Your task to perform on an android device: find snoozed emails in the gmail app Image 0: 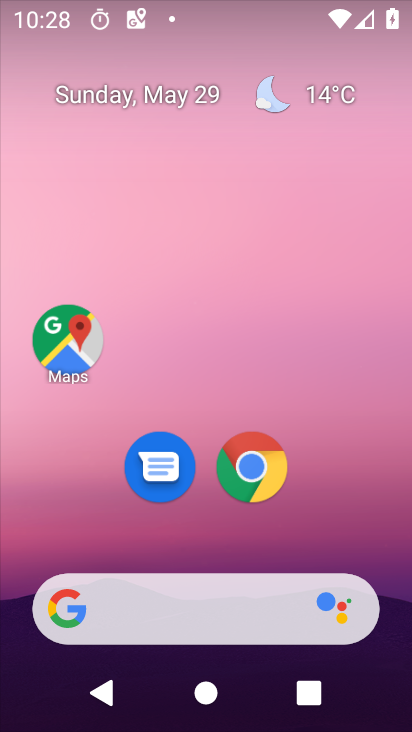
Step 0: drag from (192, 538) to (175, 250)
Your task to perform on an android device: find snoozed emails in the gmail app Image 1: 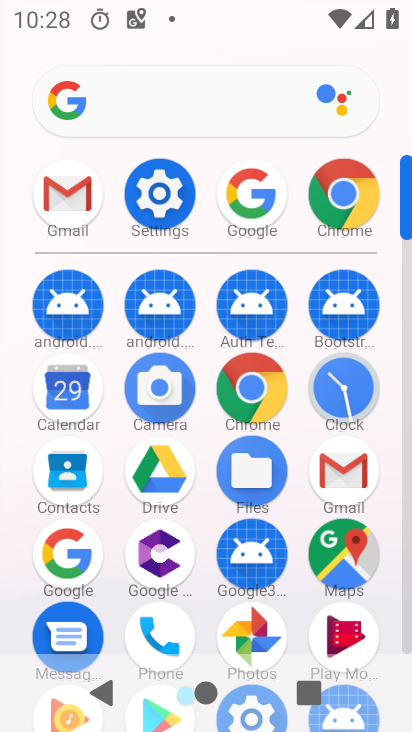
Step 1: click (86, 198)
Your task to perform on an android device: find snoozed emails in the gmail app Image 2: 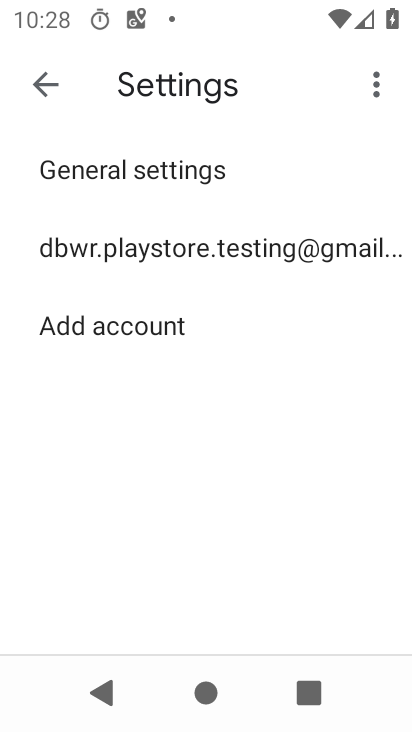
Step 2: click (37, 91)
Your task to perform on an android device: find snoozed emails in the gmail app Image 3: 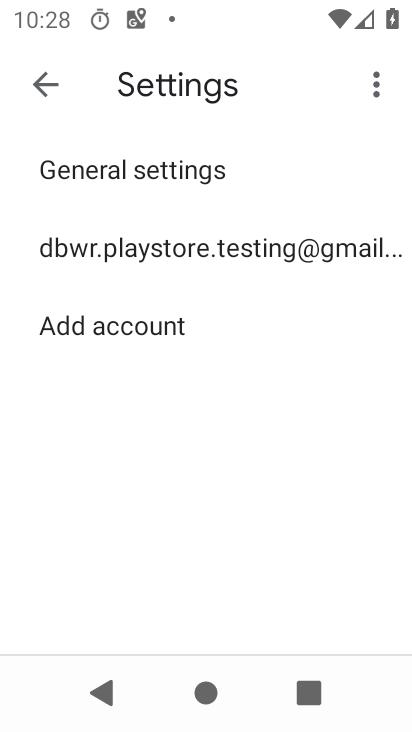
Step 3: click (41, 93)
Your task to perform on an android device: find snoozed emails in the gmail app Image 4: 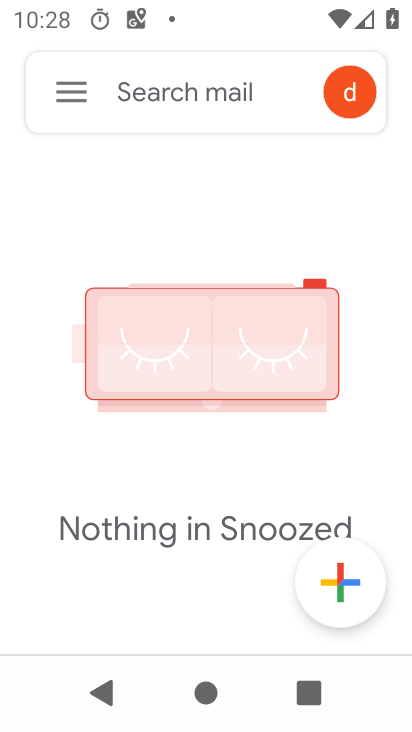
Step 4: click (61, 88)
Your task to perform on an android device: find snoozed emails in the gmail app Image 5: 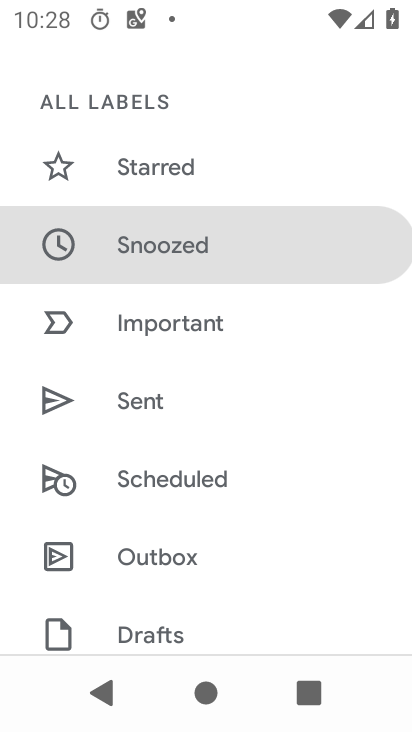
Step 5: click (183, 249)
Your task to perform on an android device: find snoozed emails in the gmail app Image 6: 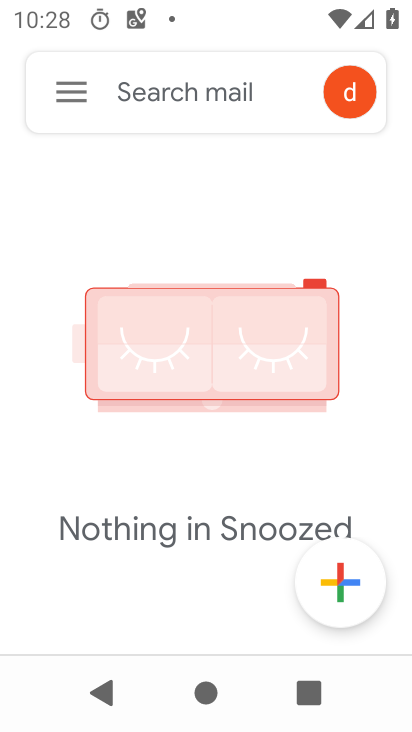
Step 6: task complete